Your task to perform on an android device: Search for vegetarian restaurants on Maps Image 0: 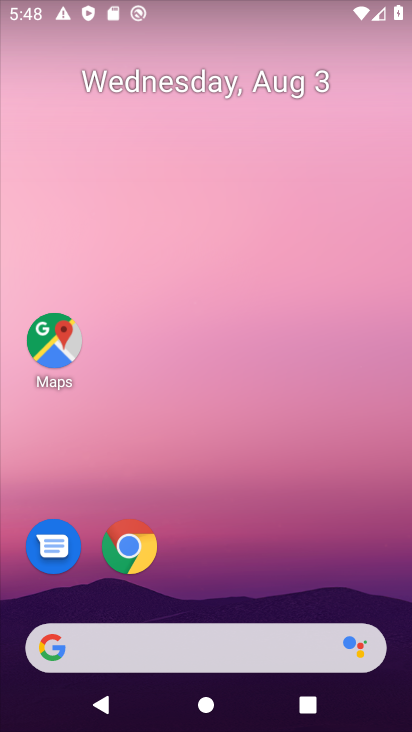
Step 0: press home button
Your task to perform on an android device: Search for vegetarian restaurants on Maps Image 1: 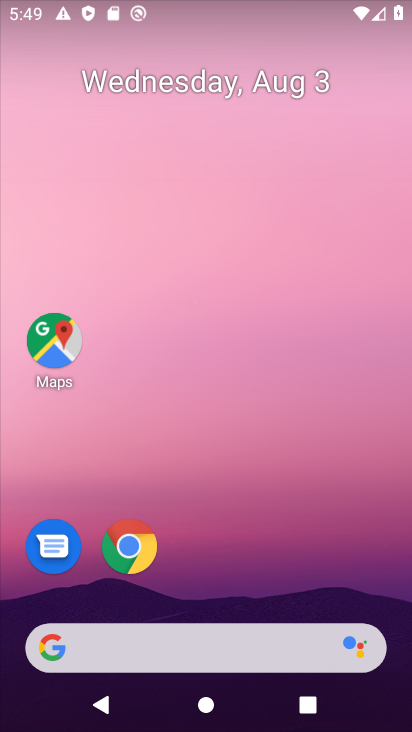
Step 1: click (60, 344)
Your task to perform on an android device: Search for vegetarian restaurants on Maps Image 2: 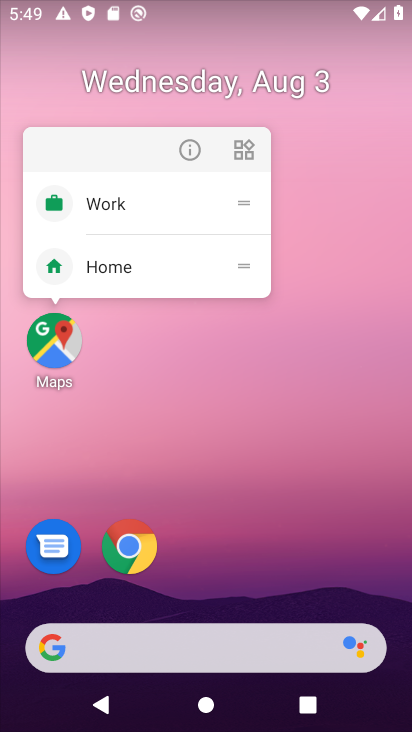
Step 2: click (52, 351)
Your task to perform on an android device: Search for vegetarian restaurants on Maps Image 3: 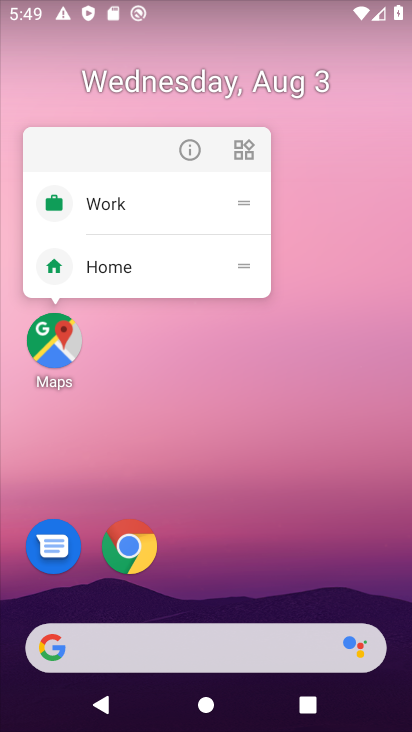
Step 3: click (52, 351)
Your task to perform on an android device: Search for vegetarian restaurants on Maps Image 4: 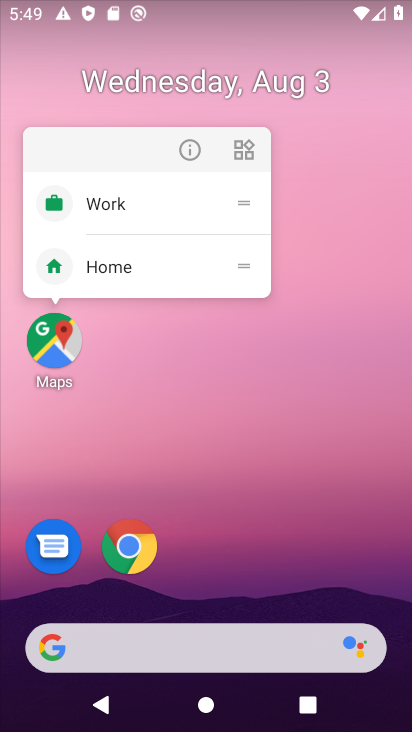
Step 4: click (52, 351)
Your task to perform on an android device: Search for vegetarian restaurants on Maps Image 5: 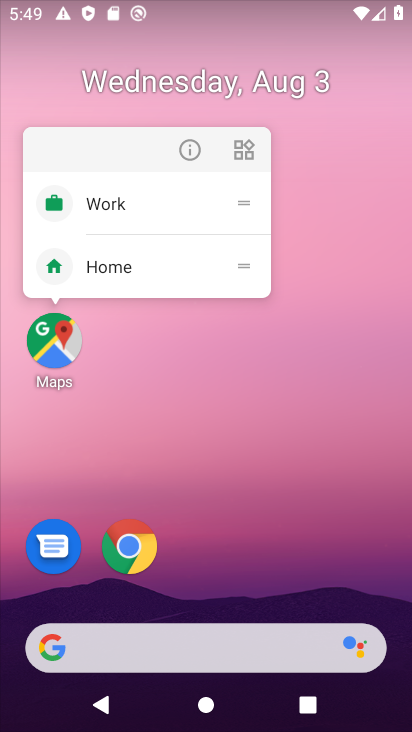
Step 5: click (65, 350)
Your task to perform on an android device: Search for vegetarian restaurants on Maps Image 6: 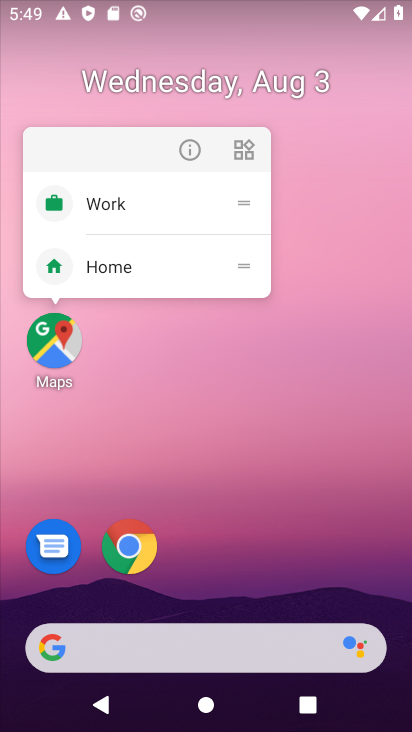
Step 6: click (57, 344)
Your task to perform on an android device: Search for vegetarian restaurants on Maps Image 7: 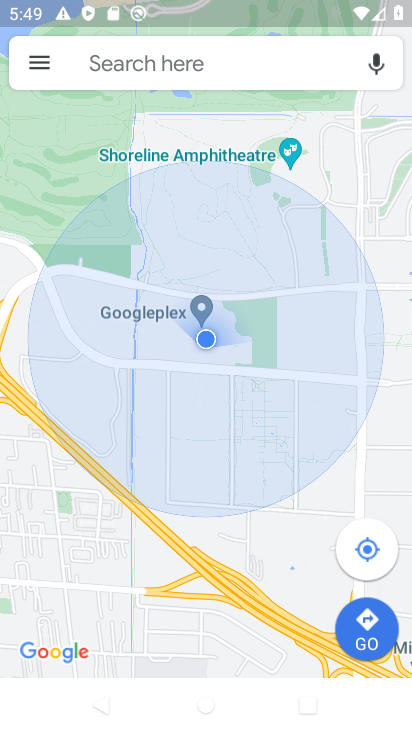
Step 7: click (201, 75)
Your task to perform on an android device: Search for vegetarian restaurants on Maps Image 8: 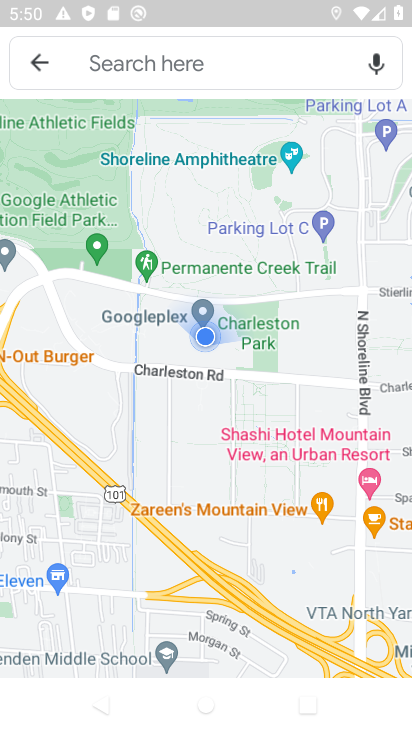
Step 8: click (183, 50)
Your task to perform on an android device: Search for vegetarian restaurants on Maps Image 9: 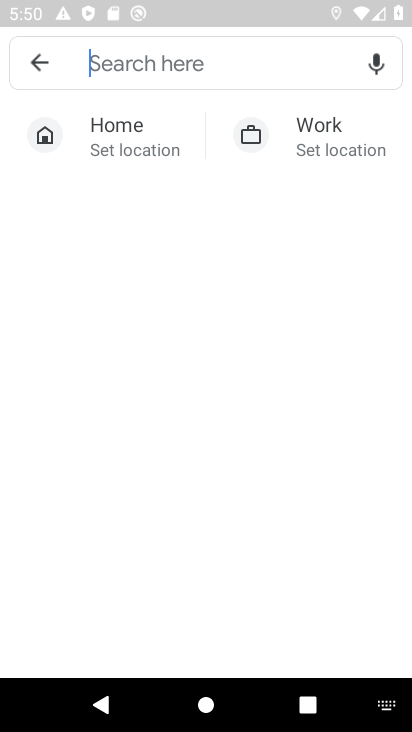
Step 9: type "vegetarian restaurants"
Your task to perform on an android device: Search for vegetarian restaurants on Maps Image 10: 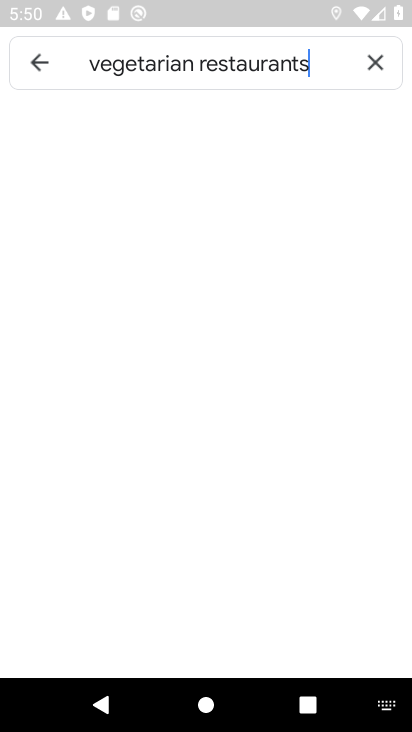
Step 10: press enter
Your task to perform on an android device: Search for vegetarian restaurants on Maps Image 11: 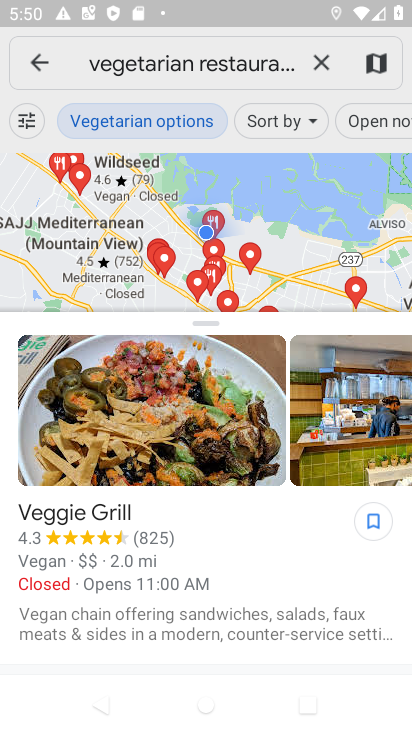
Step 11: task complete